Your task to perform on an android device: Do I have any events this weekend? Image 0: 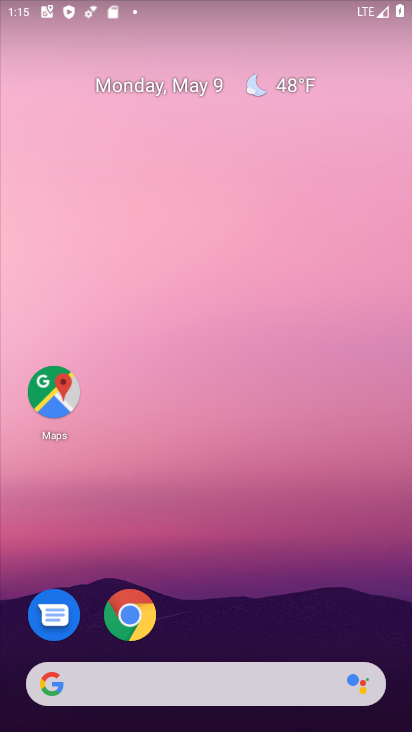
Step 0: drag from (357, 629) to (303, 47)
Your task to perform on an android device: Do I have any events this weekend? Image 1: 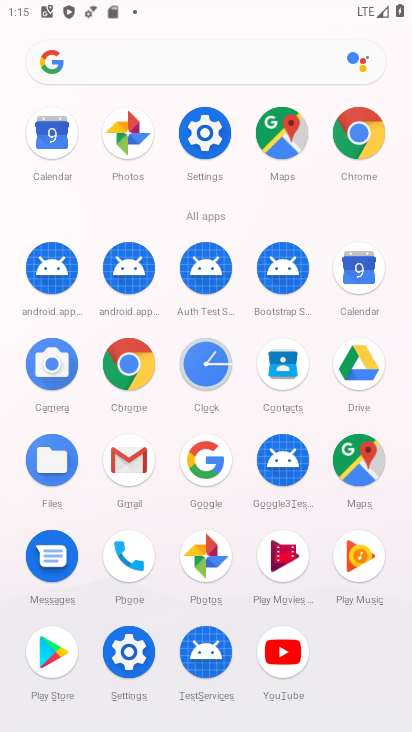
Step 1: click (360, 269)
Your task to perform on an android device: Do I have any events this weekend? Image 2: 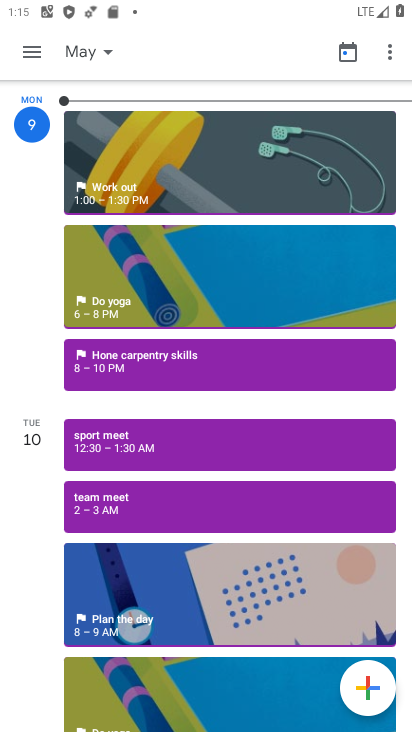
Step 2: drag from (197, 656) to (238, 285)
Your task to perform on an android device: Do I have any events this weekend? Image 3: 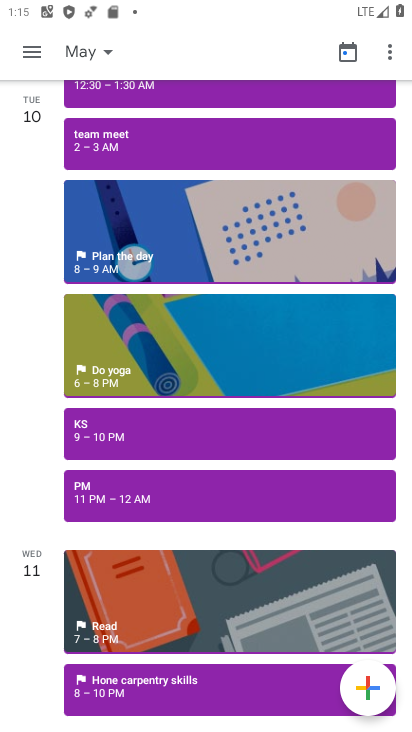
Step 3: drag from (249, 686) to (296, 243)
Your task to perform on an android device: Do I have any events this weekend? Image 4: 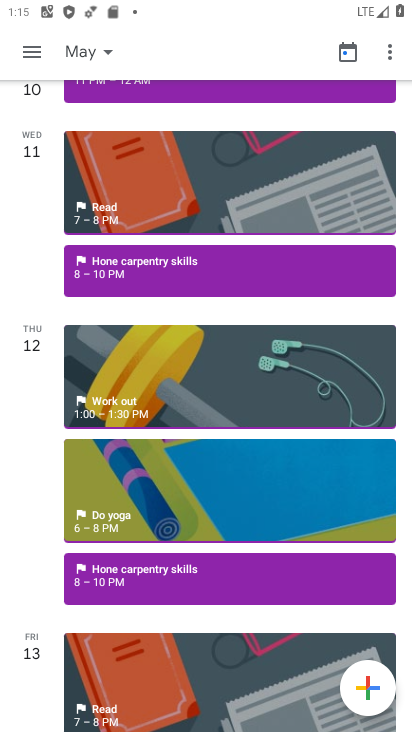
Step 4: drag from (182, 610) to (296, 270)
Your task to perform on an android device: Do I have any events this weekend? Image 5: 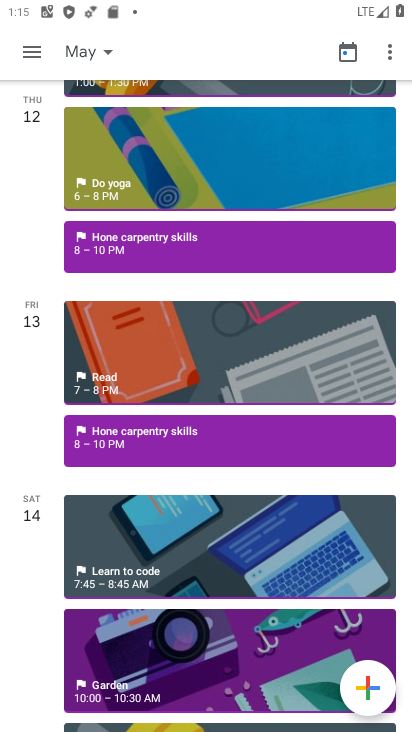
Step 5: click (37, 56)
Your task to perform on an android device: Do I have any events this weekend? Image 6: 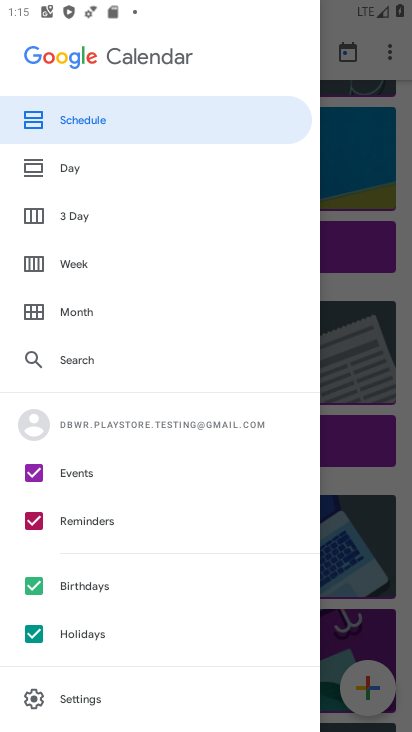
Step 6: click (73, 266)
Your task to perform on an android device: Do I have any events this weekend? Image 7: 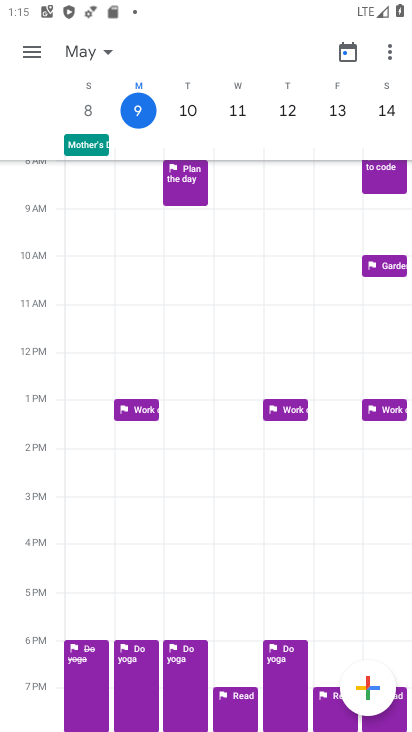
Step 7: task complete